Your task to perform on an android device: change alarm snooze length Image 0: 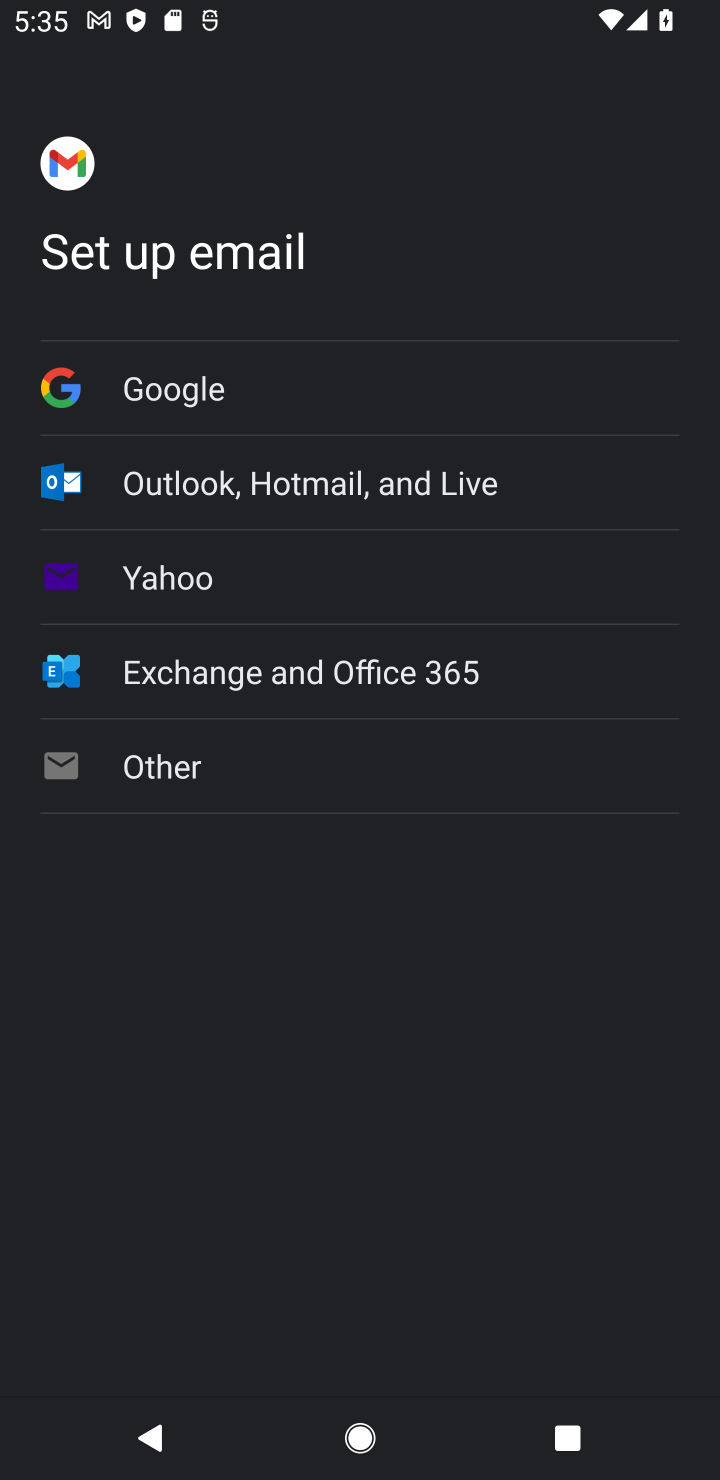
Step 0: press home button
Your task to perform on an android device: change alarm snooze length Image 1: 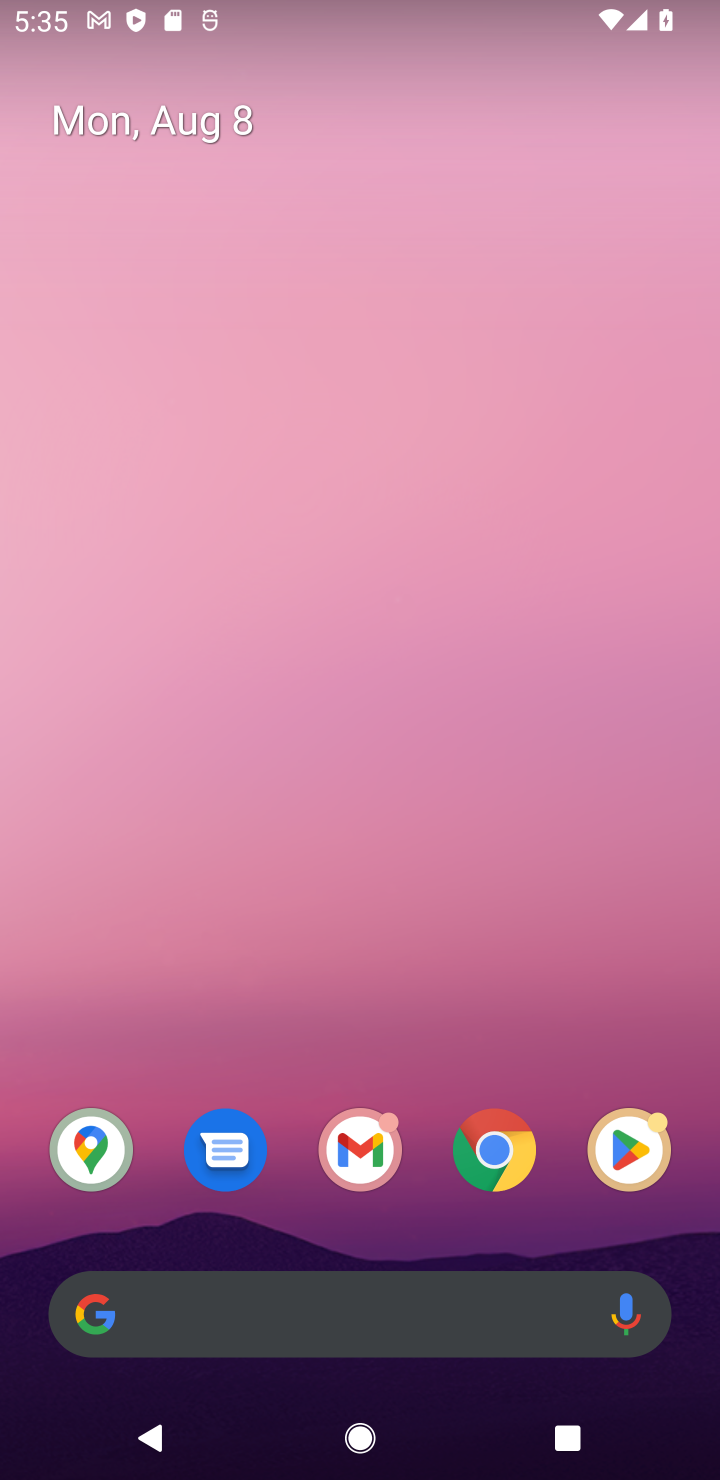
Step 1: drag from (412, 1213) to (270, 19)
Your task to perform on an android device: change alarm snooze length Image 2: 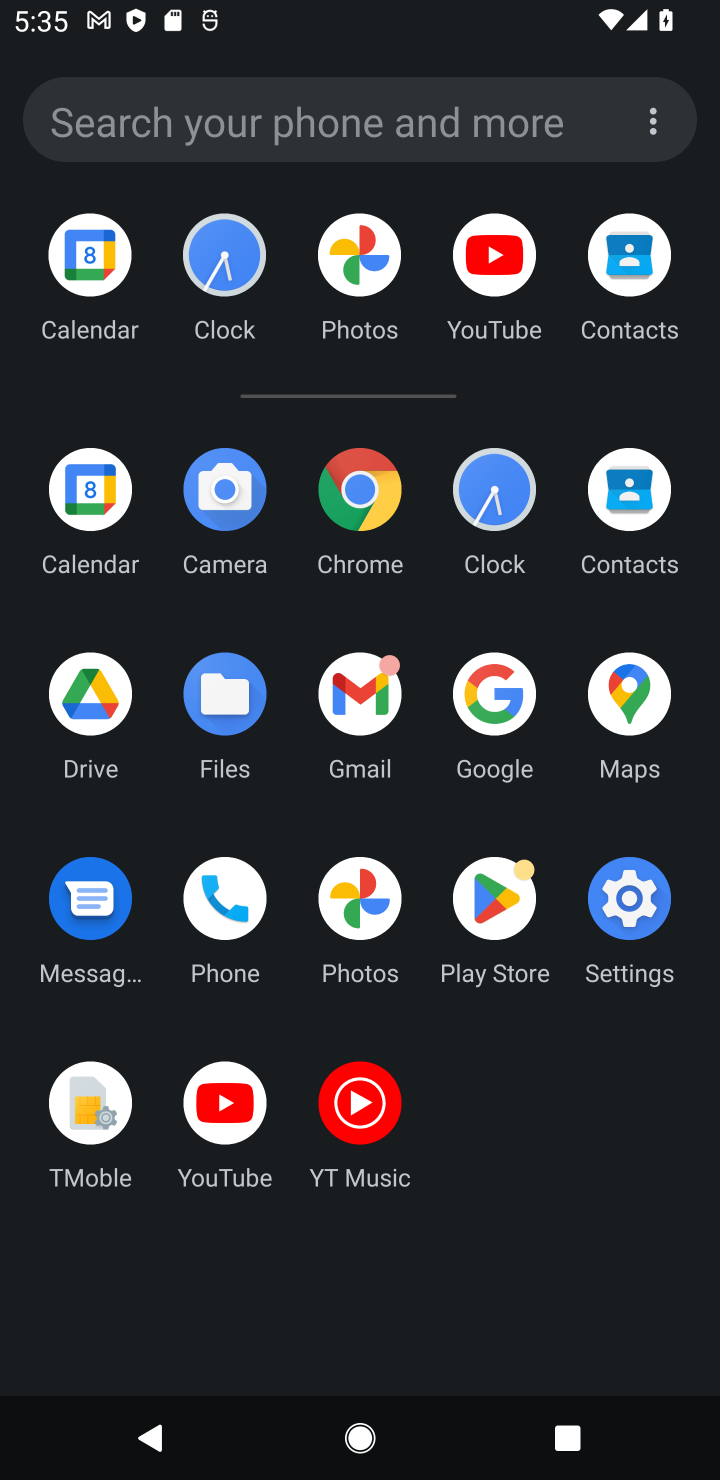
Step 2: click (245, 292)
Your task to perform on an android device: change alarm snooze length Image 3: 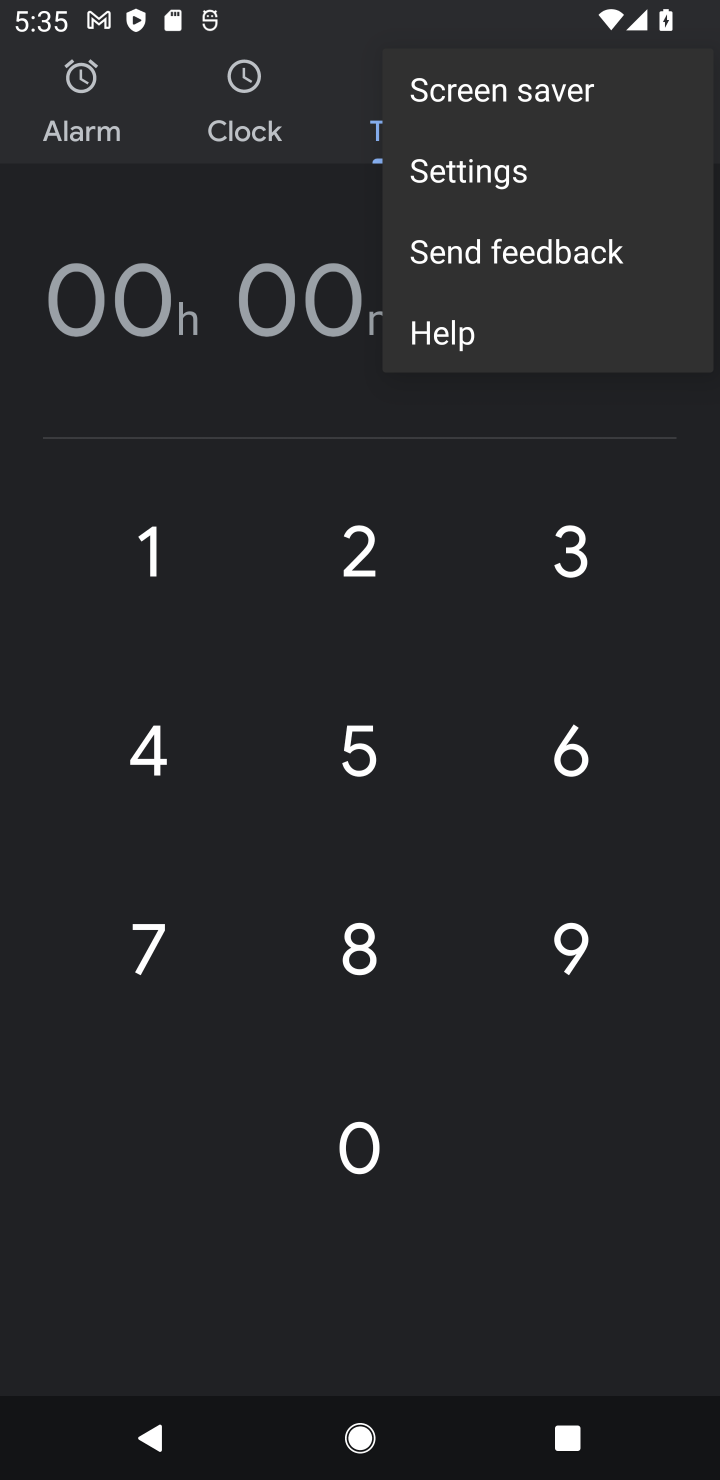
Step 3: click (58, 148)
Your task to perform on an android device: change alarm snooze length Image 4: 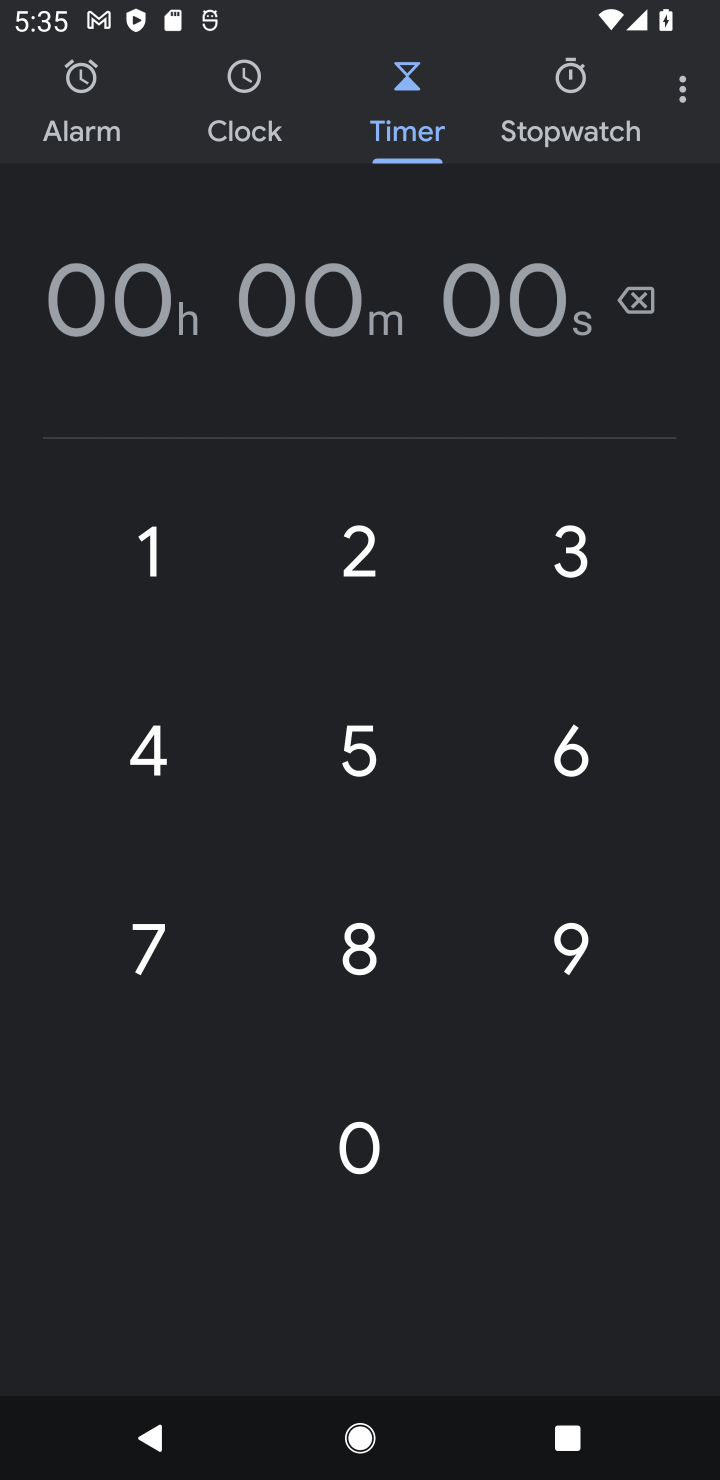
Step 4: task complete